Your task to perform on an android device: Open the stopwatch Image 0: 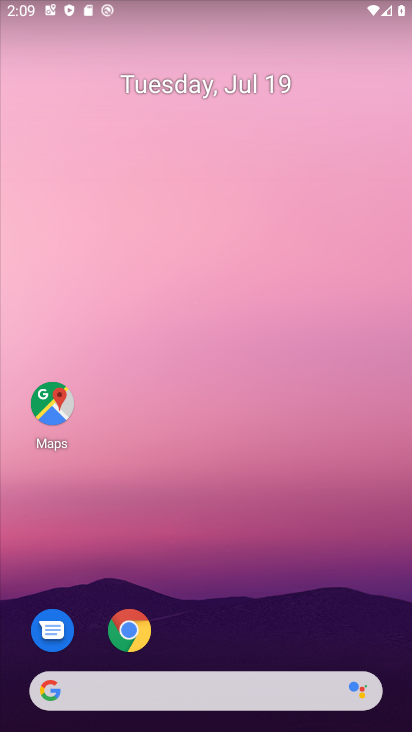
Step 0: drag from (368, 642) to (334, 5)
Your task to perform on an android device: Open the stopwatch Image 1: 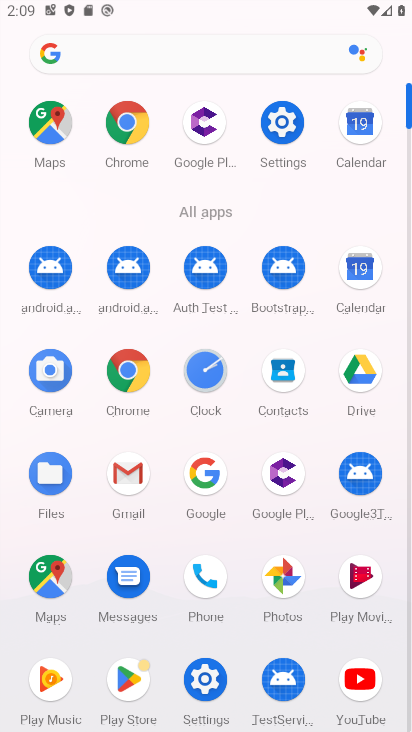
Step 1: click (204, 370)
Your task to perform on an android device: Open the stopwatch Image 2: 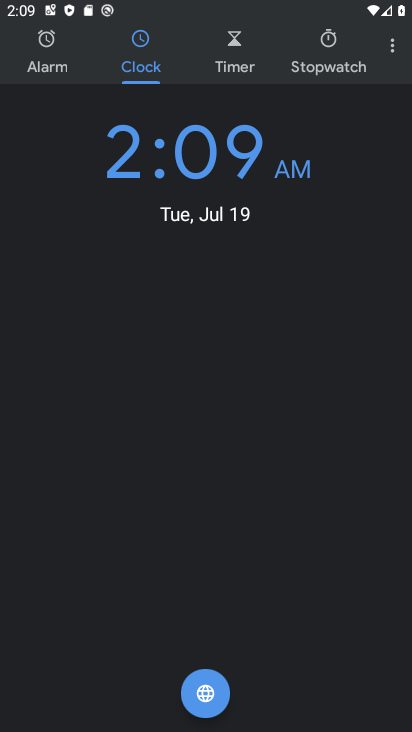
Step 2: click (328, 42)
Your task to perform on an android device: Open the stopwatch Image 3: 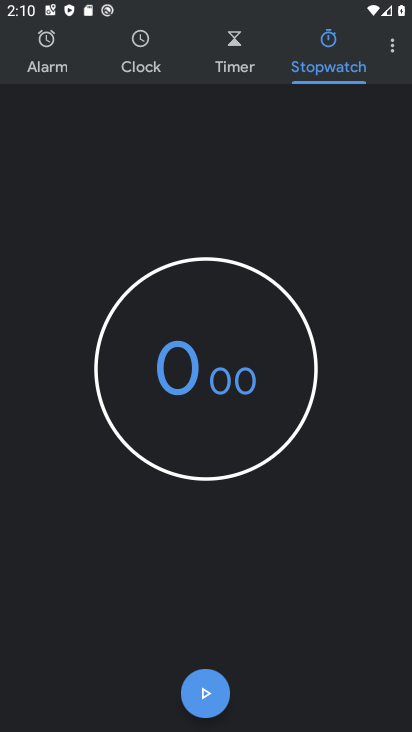
Step 3: task complete